Your task to perform on an android device: Play the last video I watched on Youtube Image 0: 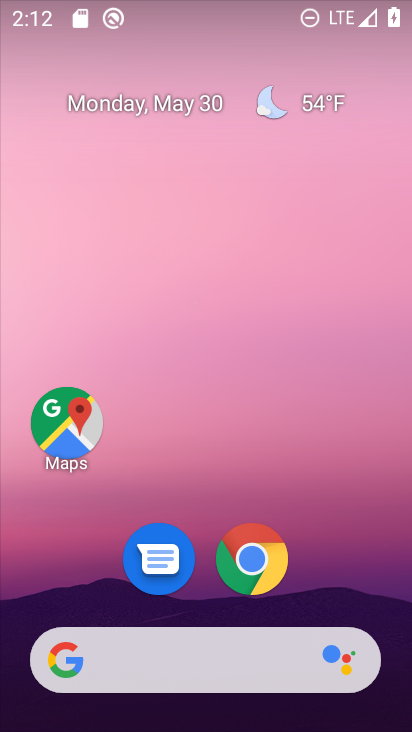
Step 0: drag from (325, 590) to (387, 48)
Your task to perform on an android device: Play the last video I watched on Youtube Image 1: 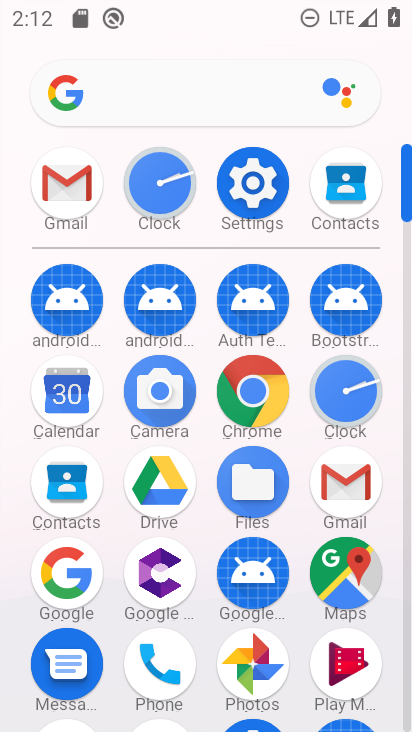
Step 1: drag from (205, 629) to (204, 388)
Your task to perform on an android device: Play the last video I watched on Youtube Image 2: 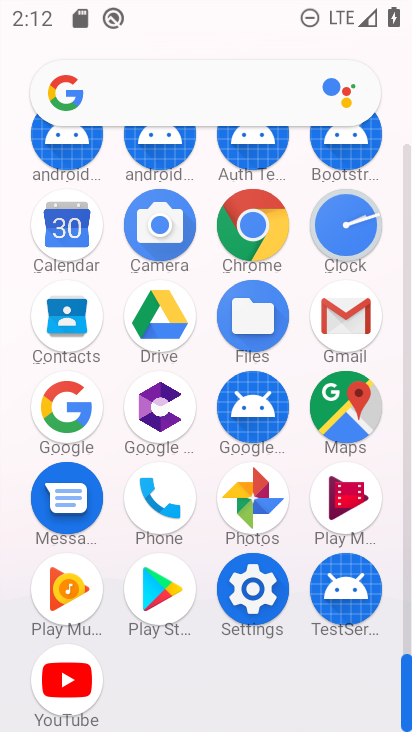
Step 2: click (59, 686)
Your task to perform on an android device: Play the last video I watched on Youtube Image 3: 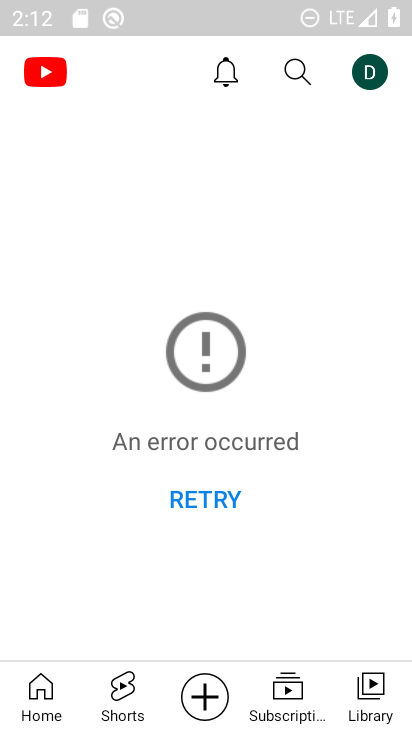
Step 3: click (367, 704)
Your task to perform on an android device: Play the last video I watched on Youtube Image 4: 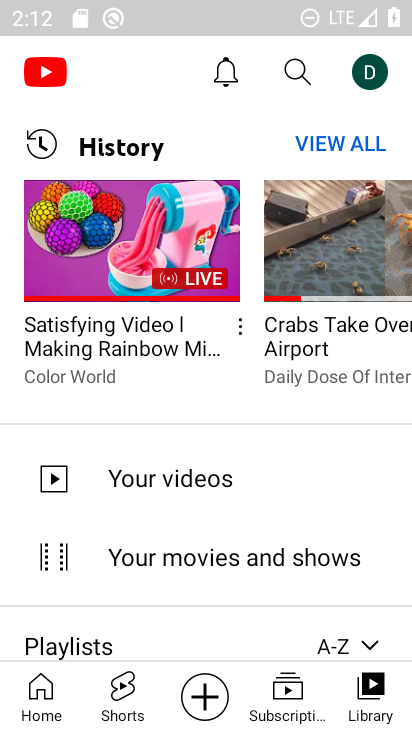
Step 4: click (138, 271)
Your task to perform on an android device: Play the last video I watched on Youtube Image 5: 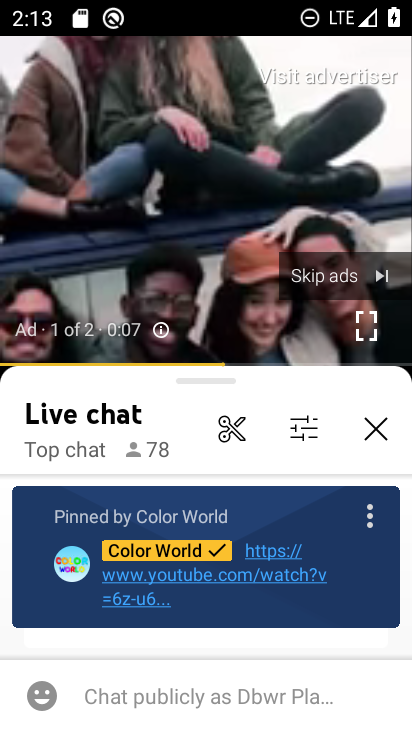
Step 5: task complete